Your task to perform on an android device: open app "Reddit" (install if not already installed) and go to login screen Image 0: 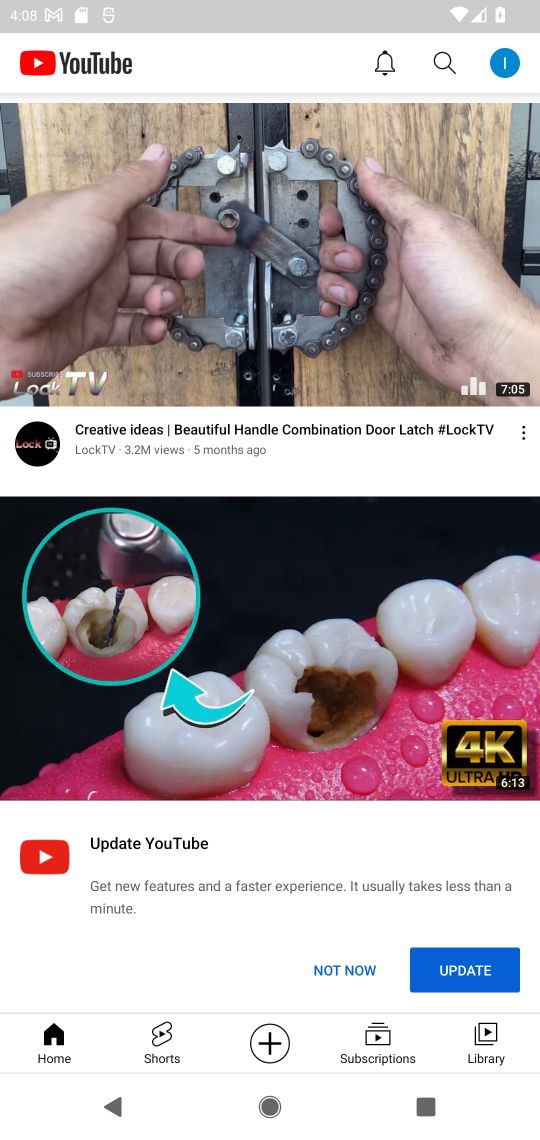
Step 0: press home button
Your task to perform on an android device: open app "Reddit" (install if not already installed) and go to login screen Image 1: 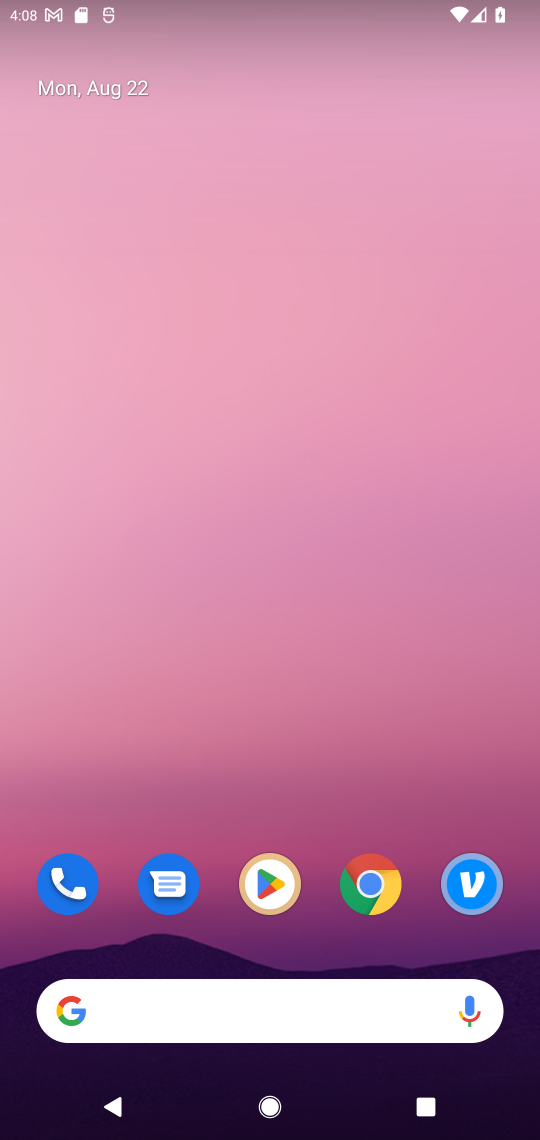
Step 1: click (267, 900)
Your task to perform on an android device: open app "Reddit" (install if not already installed) and go to login screen Image 2: 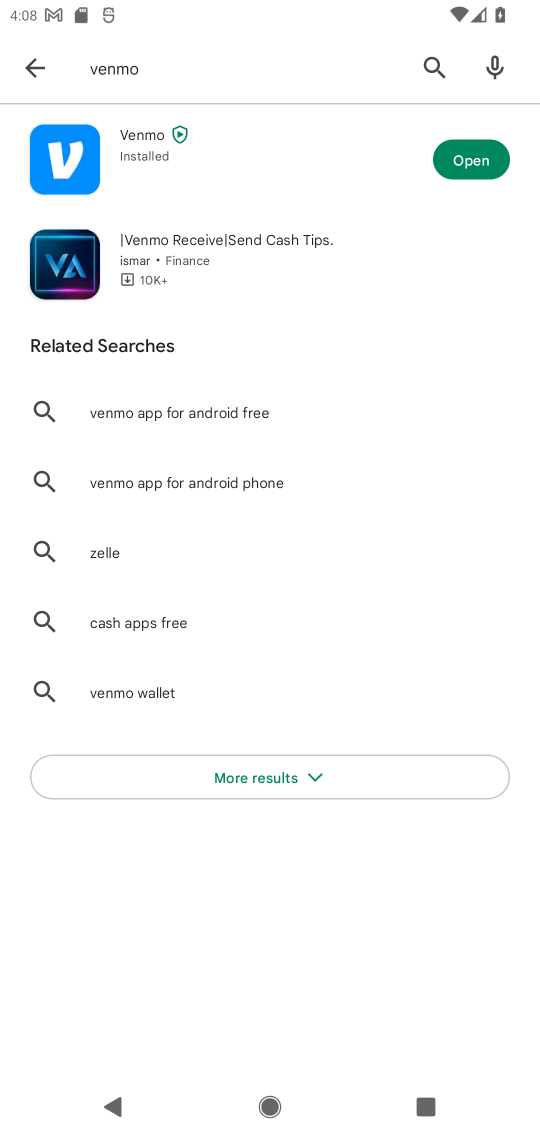
Step 2: click (173, 61)
Your task to perform on an android device: open app "Reddit" (install if not already installed) and go to login screen Image 3: 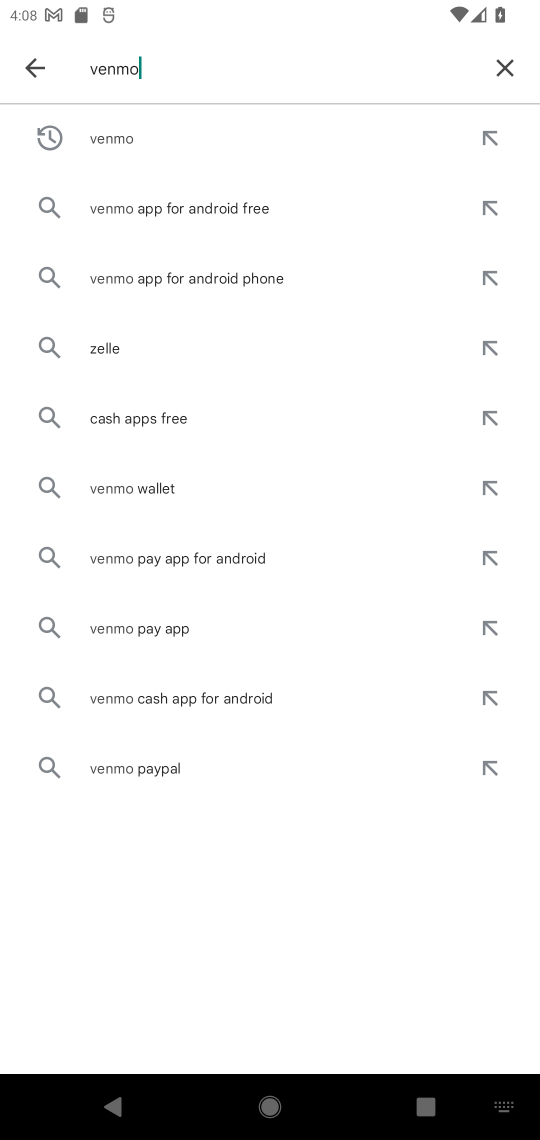
Step 3: click (505, 62)
Your task to perform on an android device: open app "Reddit" (install if not already installed) and go to login screen Image 4: 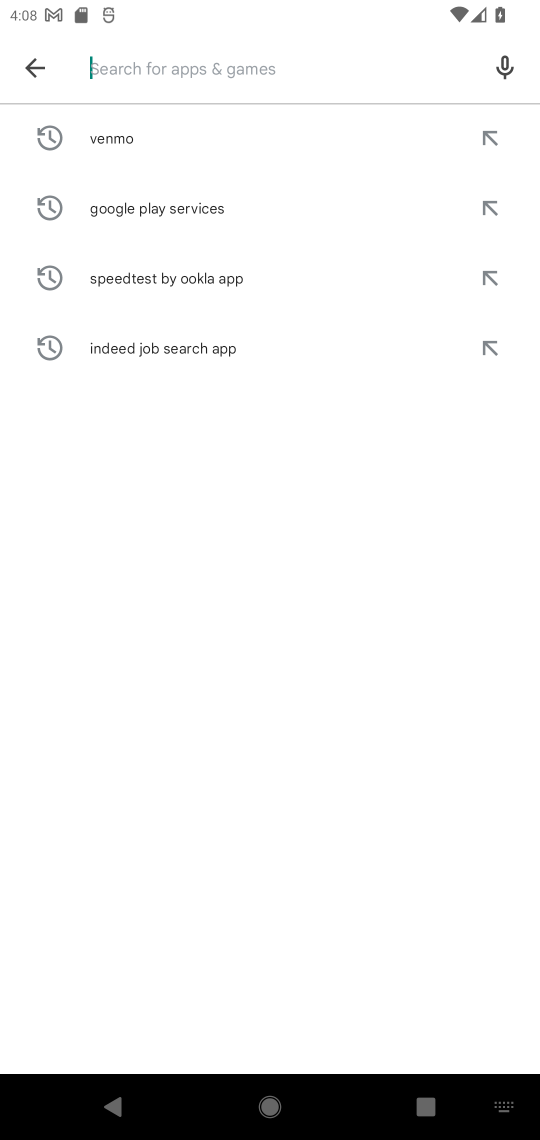
Step 4: type "reddit"
Your task to perform on an android device: open app "Reddit" (install if not already installed) and go to login screen Image 5: 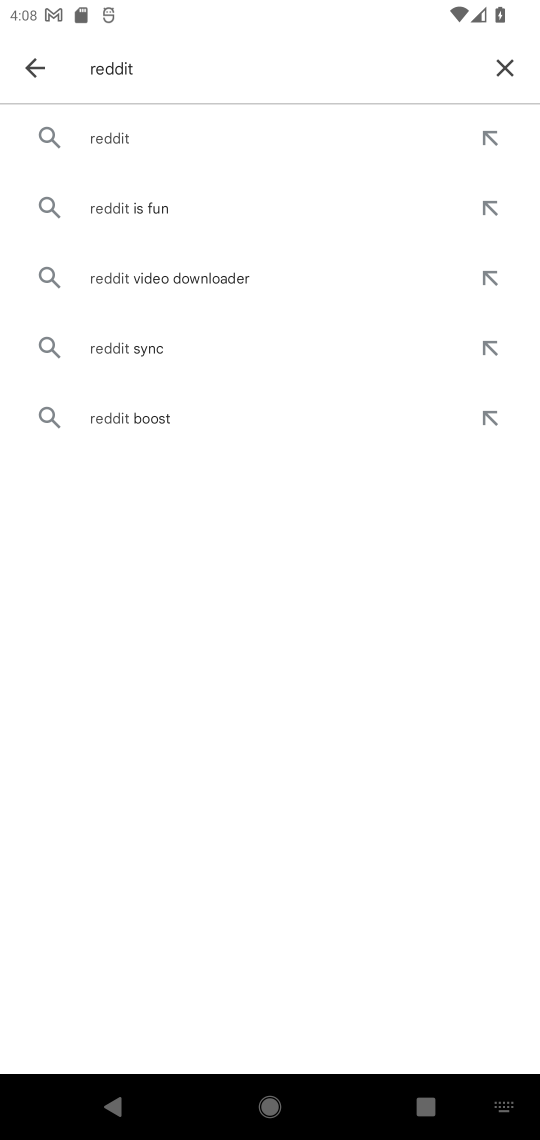
Step 5: click (116, 137)
Your task to perform on an android device: open app "Reddit" (install if not already installed) and go to login screen Image 6: 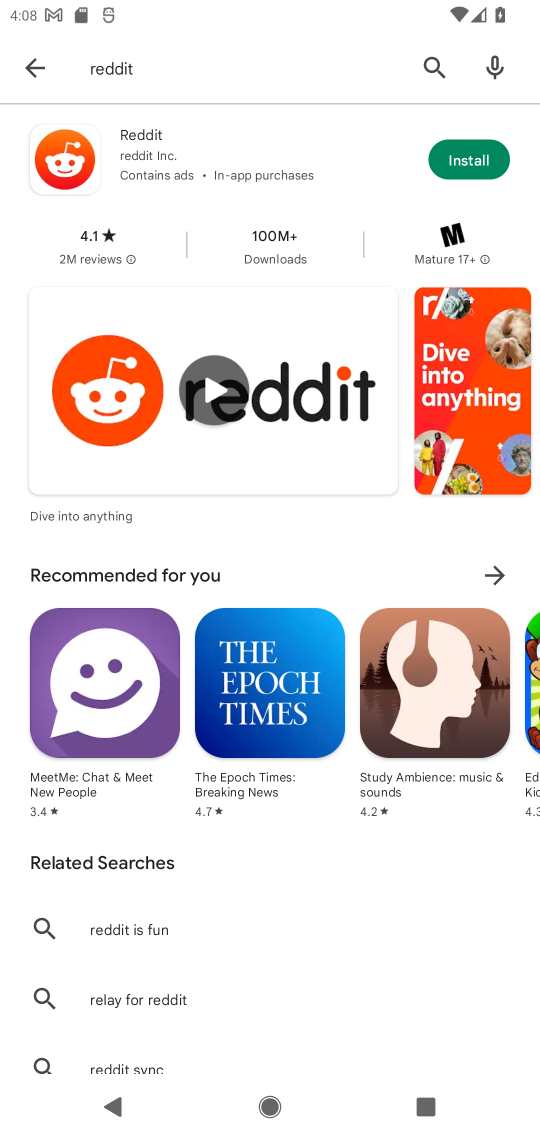
Step 6: click (461, 146)
Your task to perform on an android device: open app "Reddit" (install if not already installed) and go to login screen Image 7: 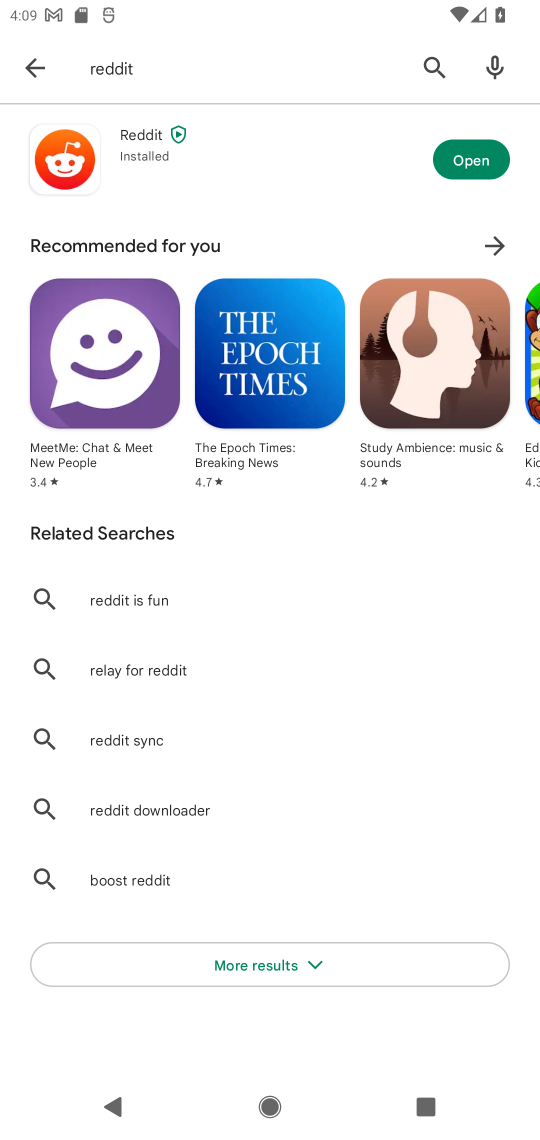
Step 7: click (471, 167)
Your task to perform on an android device: open app "Reddit" (install if not already installed) and go to login screen Image 8: 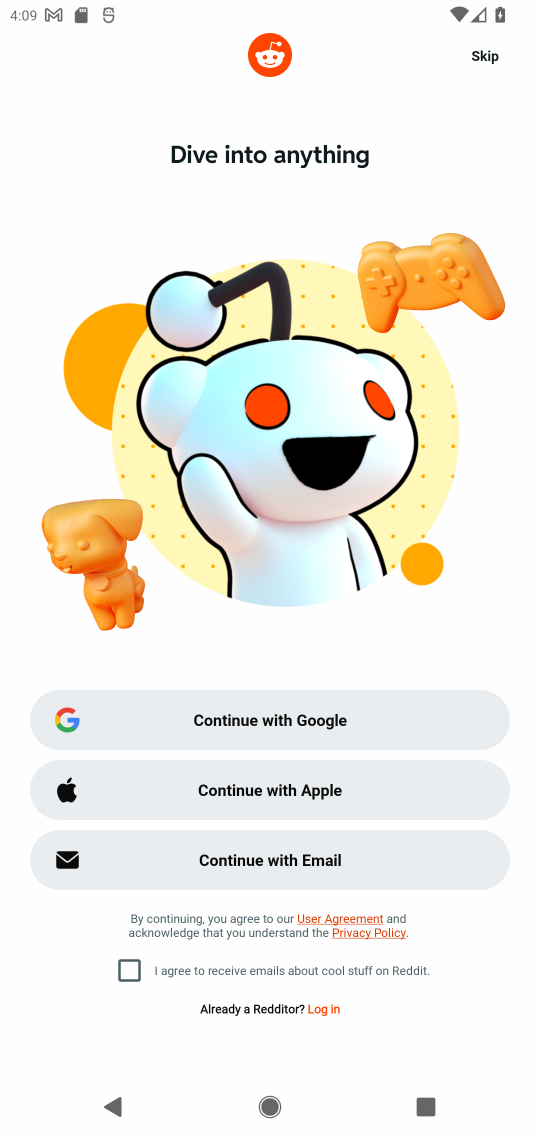
Step 8: click (333, 1006)
Your task to perform on an android device: open app "Reddit" (install if not already installed) and go to login screen Image 9: 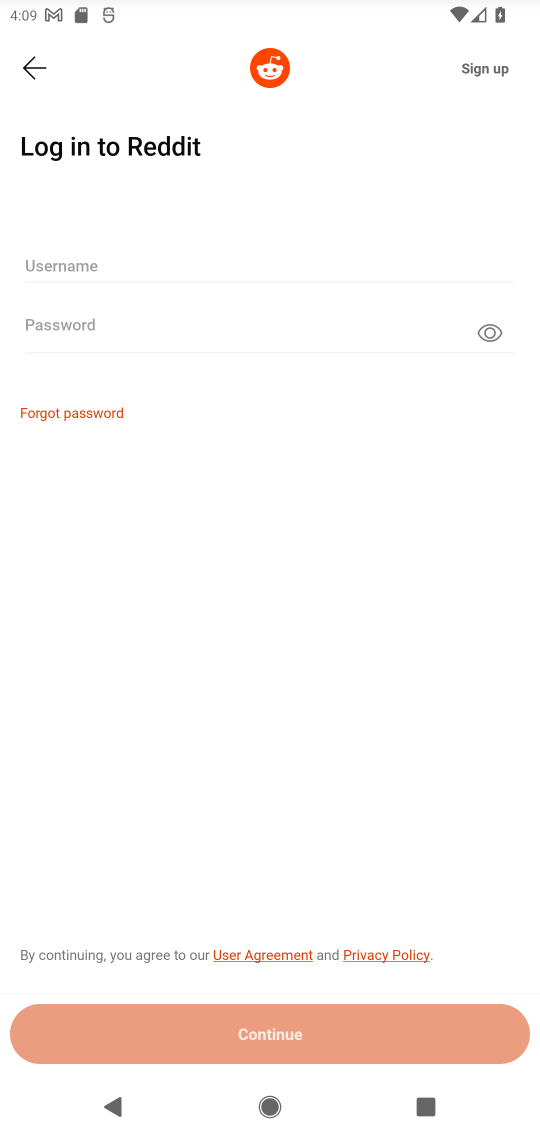
Step 9: task complete